Your task to perform on an android device: toggle notifications settings in the gmail app Image 0: 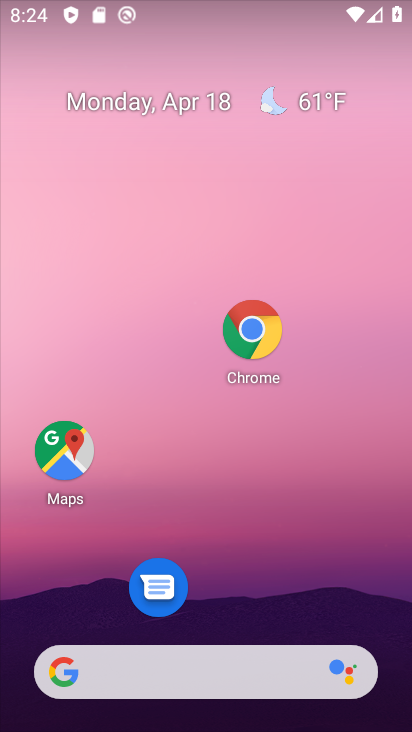
Step 0: drag from (300, 435) to (300, 182)
Your task to perform on an android device: toggle notifications settings in the gmail app Image 1: 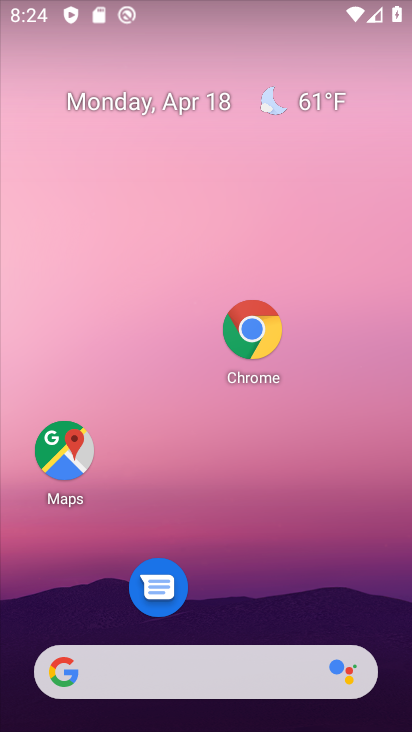
Step 1: drag from (320, 614) to (345, 303)
Your task to perform on an android device: toggle notifications settings in the gmail app Image 2: 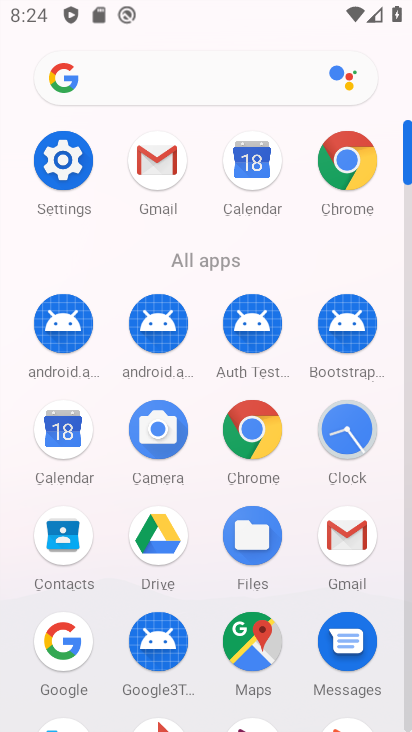
Step 2: click (143, 165)
Your task to perform on an android device: toggle notifications settings in the gmail app Image 3: 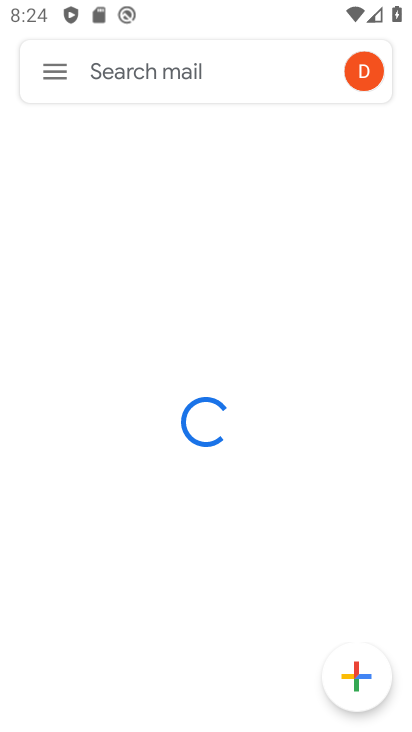
Step 3: click (54, 66)
Your task to perform on an android device: toggle notifications settings in the gmail app Image 4: 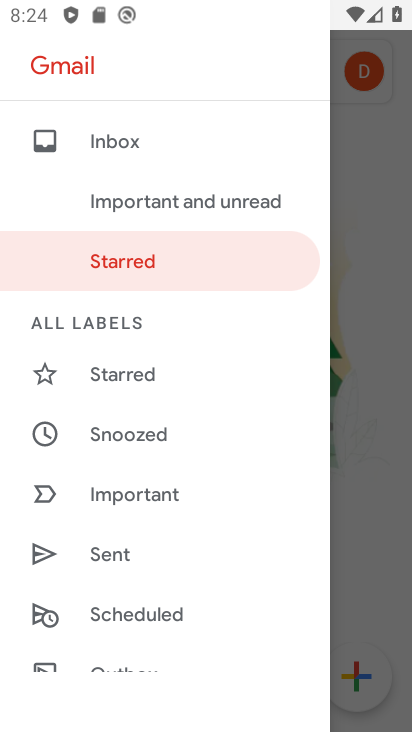
Step 4: drag from (166, 572) to (178, 136)
Your task to perform on an android device: toggle notifications settings in the gmail app Image 5: 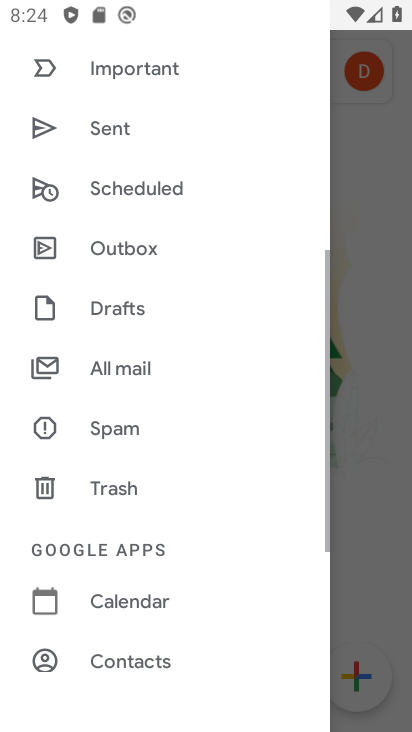
Step 5: drag from (204, 202) to (227, 133)
Your task to perform on an android device: toggle notifications settings in the gmail app Image 6: 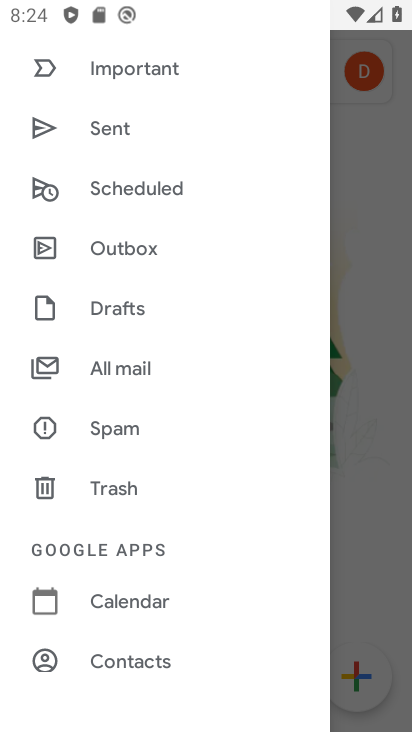
Step 6: drag from (190, 588) to (217, 202)
Your task to perform on an android device: toggle notifications settings in the gmail app Image 7: 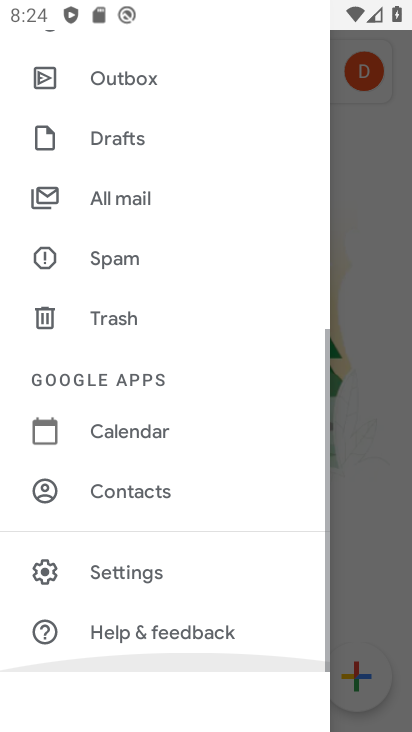
Step 7: click (100, 566)
Your task to perform on an android device: toggle notifications settings in the gmail app Image 8: 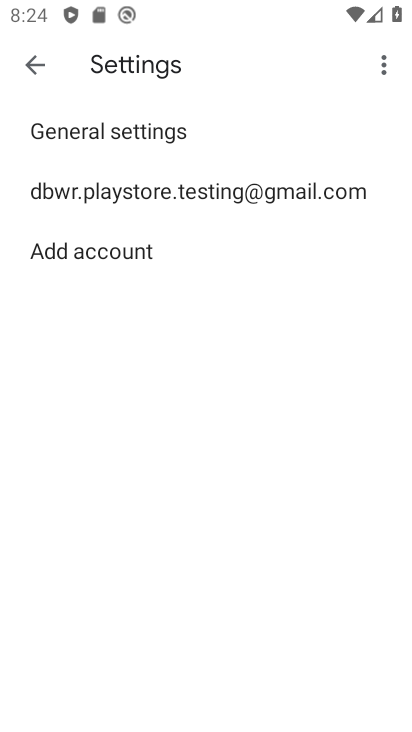
Step 8: click (131, 178)
Your task to perform on an android device: toggle notifications settings in the gmail app Image 9: 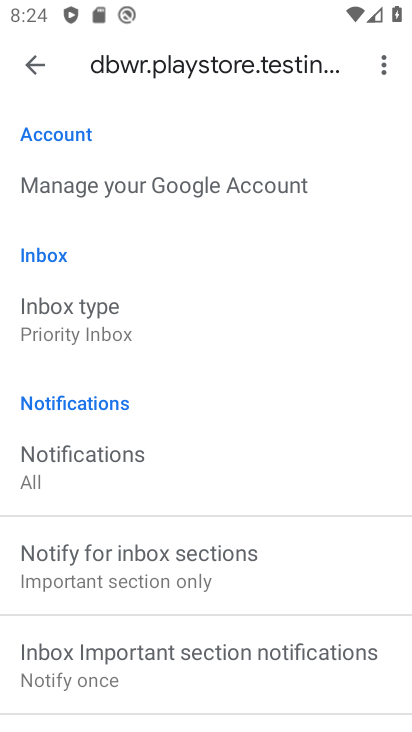
Step 9: drag from (227, 550) to (266, 271)
Your task to perform on an android device: toggle notifications settings in the gmail app Image 10: 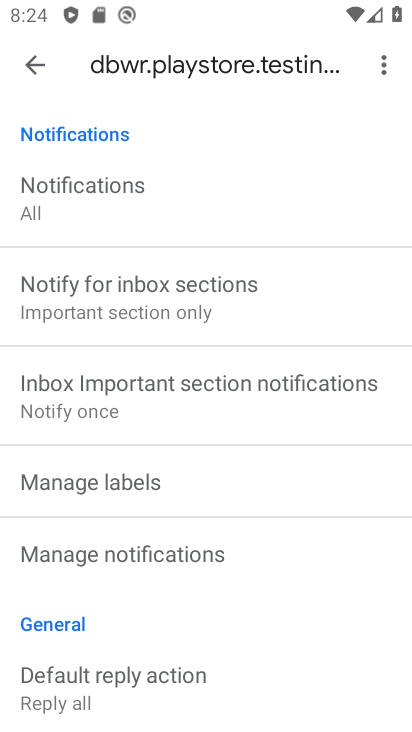
Step 10: click (122, 204)
Your task to perform on an android device: toggle notifications settings in the gmail app Image 11: 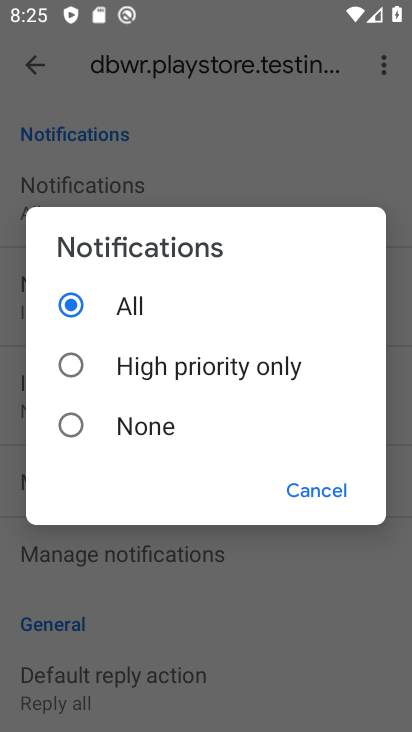
Step 11: click (112, 428)
Your task to perform on an android device: toggle notifications settings in the gmail app Image 12: 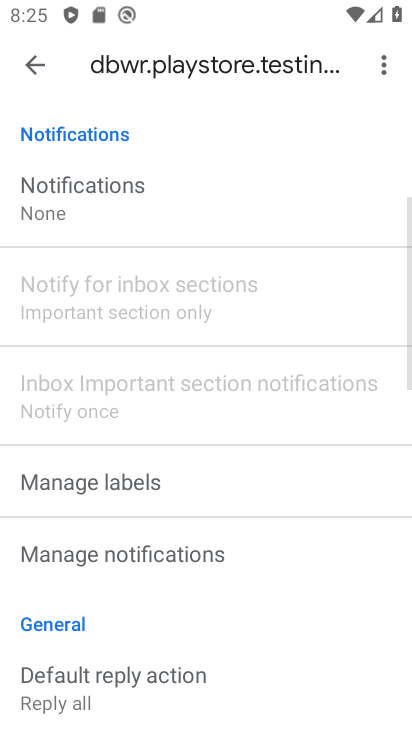
Step 12: task complete